Your task to perform on an android device: visit the assistant section in the google photos Image 0: 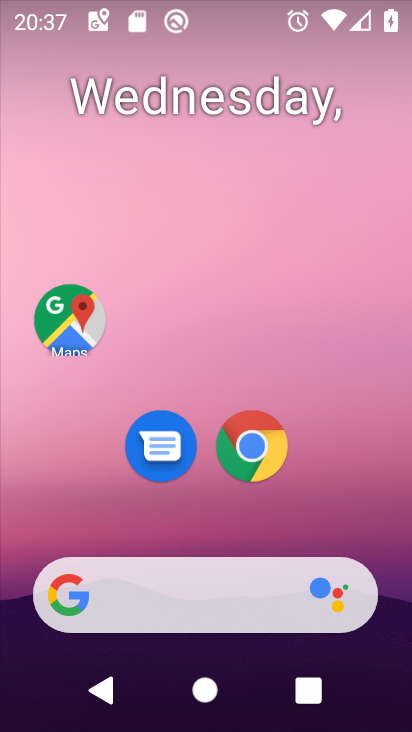
Step 0: drag from (219, 570) to (205, 146)
Your task to perform on an android device: visit the assistant section in the google photos Image 1: 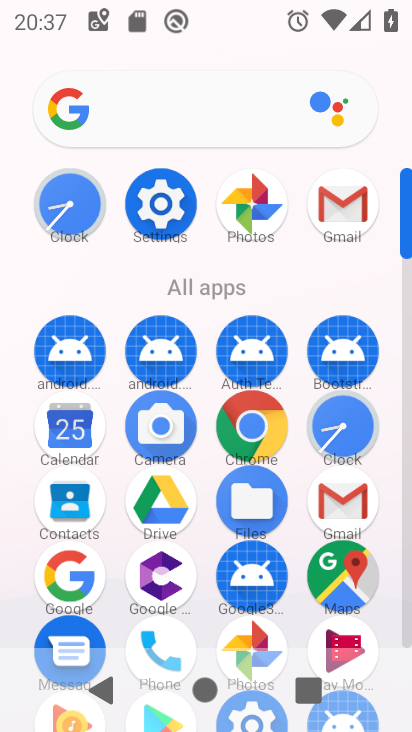
Step 1: click (251, 630)
Your task to perform on an android device: visit the assistant section in the google photos Image 2: 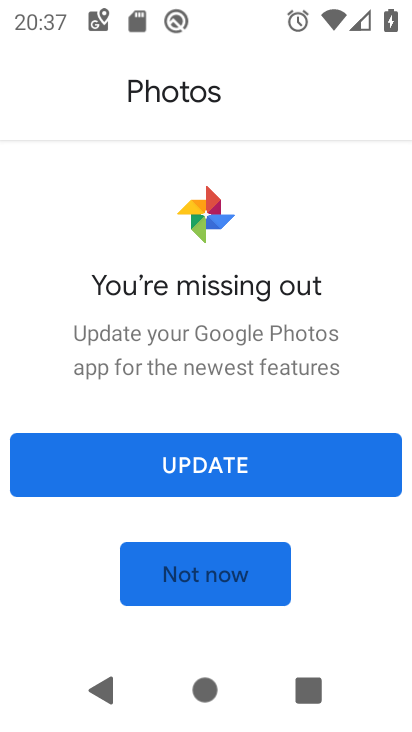
Step 2: click (238, 583)
Your task to perform on an android device: visit the assistant section in the google photos Image 3: 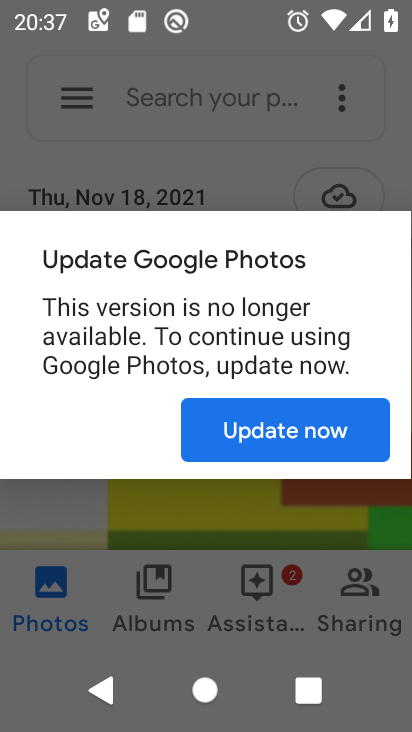
Step 3: click (259, 428)
Your task to perform on an android device: visit the assistant section in the google photos Image 4: 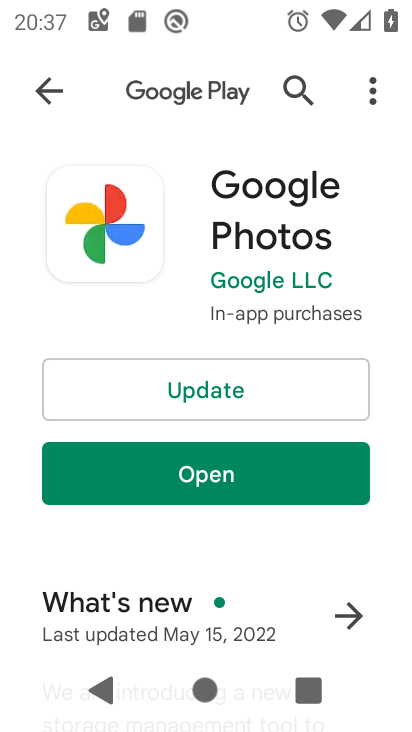
Step 4: click (206, 405)
Your task to perform on an android device: visit the assistant section in the google photos Image 5: 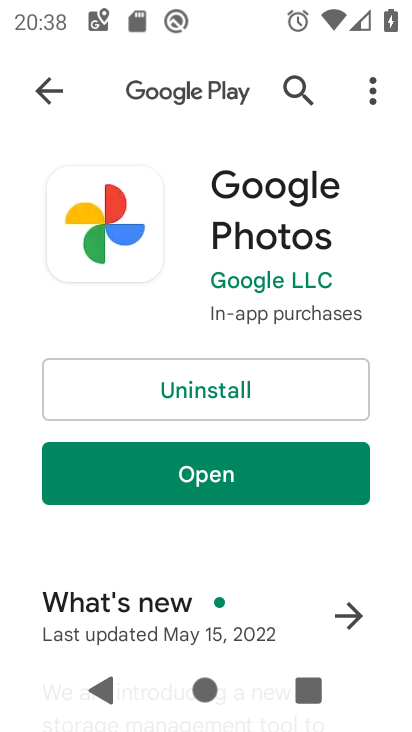
Step 5: click (235, 472)
Your task to perform on an android device: visit the assistant section in the google photos Image 6: 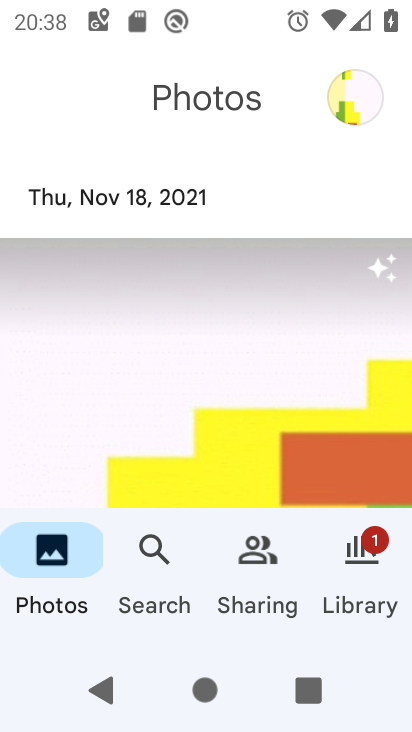
Step 6: task complete